Your task to perform on an android device: Open calendar and show me the fourth week of next month Image 0: 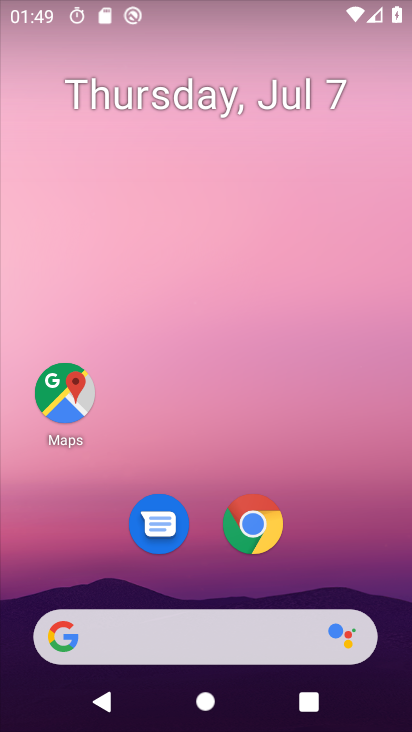
Step 0: drag from (209, 463) to (251, 23)
Your task to perform on an android device: Open calendar and show me the fourth week of next month Image 1: 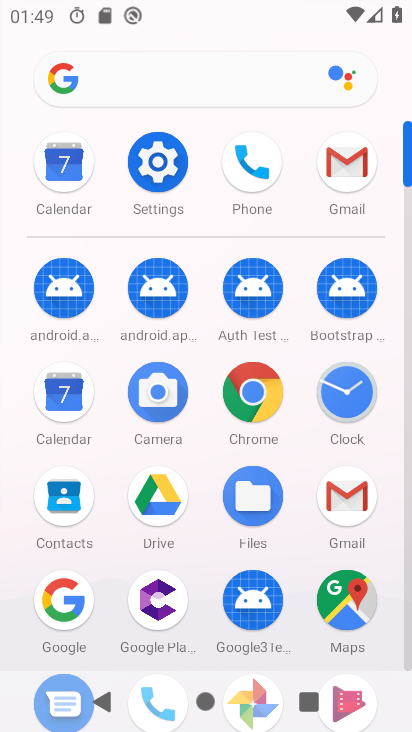
Step 1: click (62, 168)
Your task to perform on an android device: Open calendar and show me the fourth week of next month Image 2: 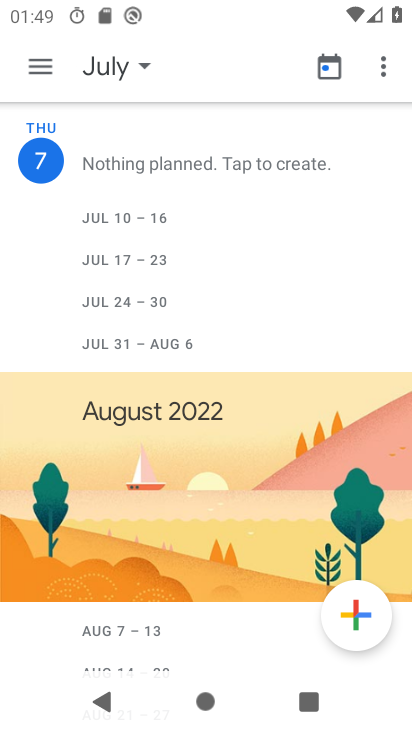
Step 2: click (33, 55)
Your task to perform on an android device: Open calendar and show me the fourth week of next month Image 3: 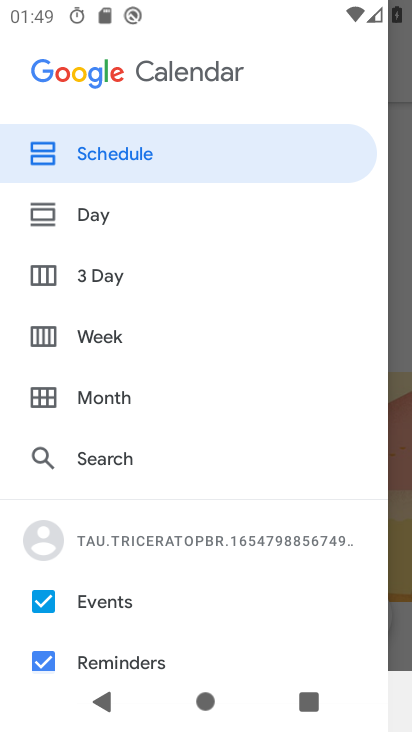
Step 3: click (91, 393)
Your task to perform on an android device: Open calendar and show me the fourth week of next month Image 4: 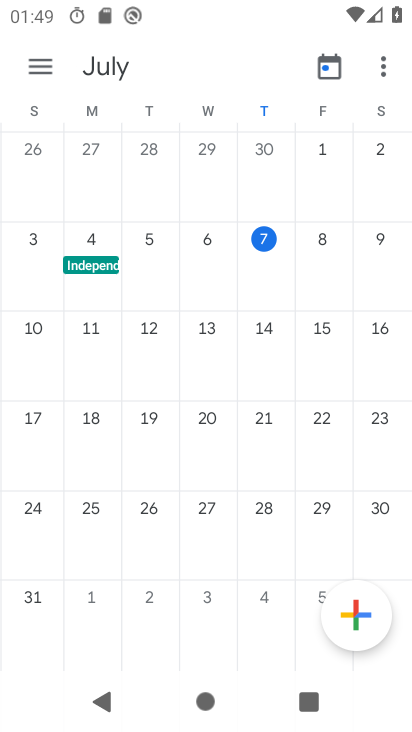
Step 4: drag from (198, 372) to (4, 323)
Your task to perform on an android device: Open calendar and show me the fourth week of next month Image 5: 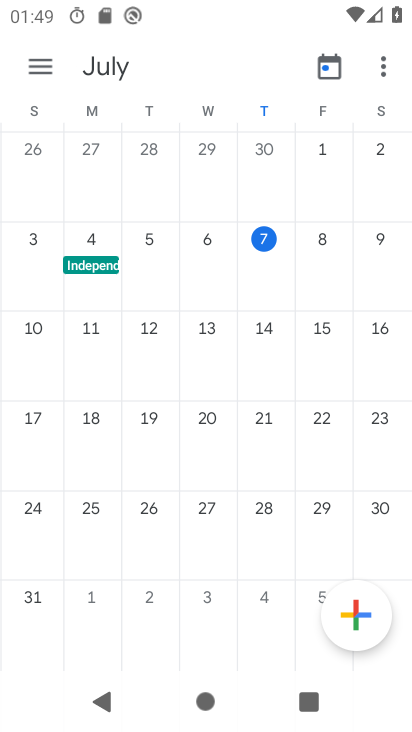
Step 5: drag from (386, 370) to (5, 363)
Your task to perform on an android device: Open calendar and show me the fourth week of next month Image 6: 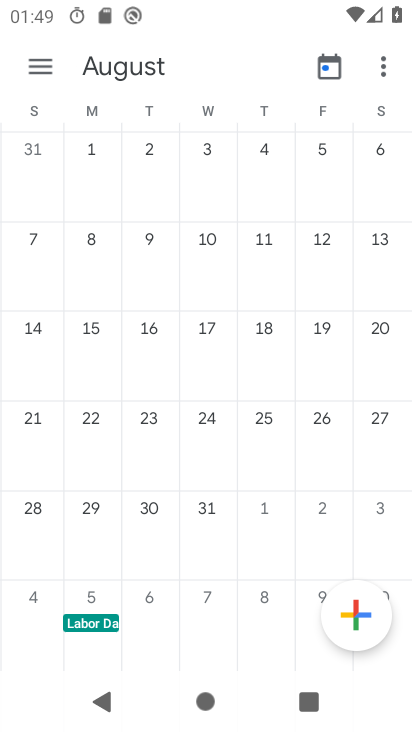
Step 6: click (30, 503)
Your task to perform on an android device: Open calendar and show me the fourth week of next month Image 7: 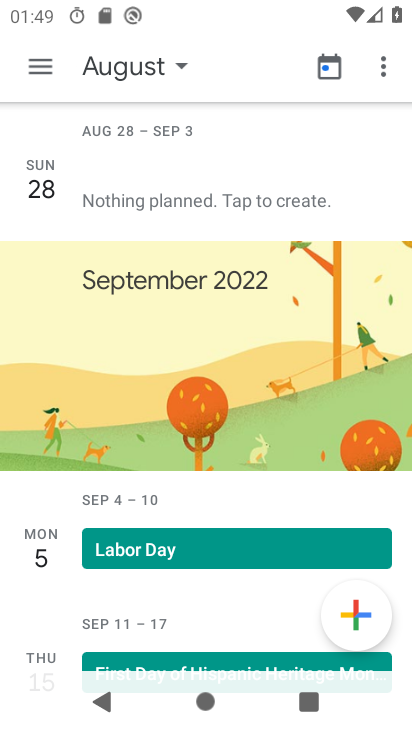
Step 7: click (38, 72)
Your task to perform on an android device: Open calendar and show me the fourth week of next month Image 8: 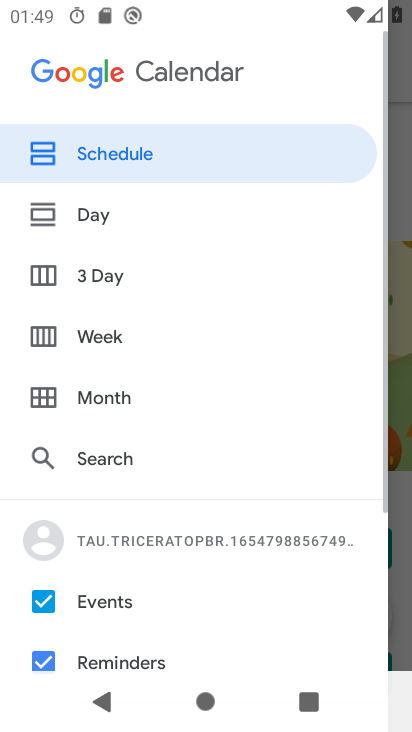
Step 8: click (78, 329)
Your task to perform on an android device: Open calendar and show me the fourth week of next month Image 9: 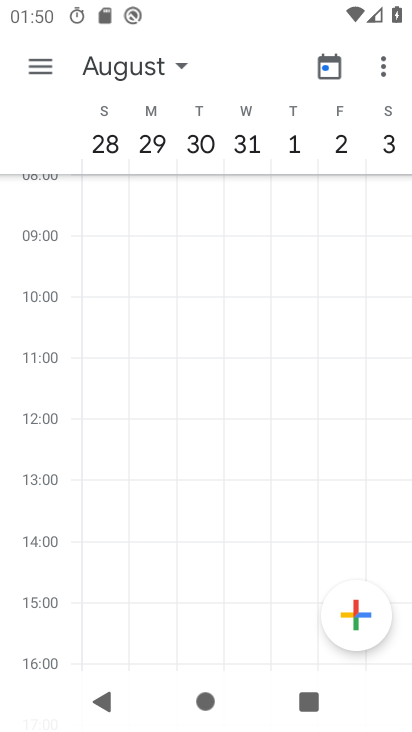
Step 9: task complete